Your task to perform on an android device: Empty the shopping cart on target. Search for dell xps on target, select the first entry, and add it to the cart. Image 0: 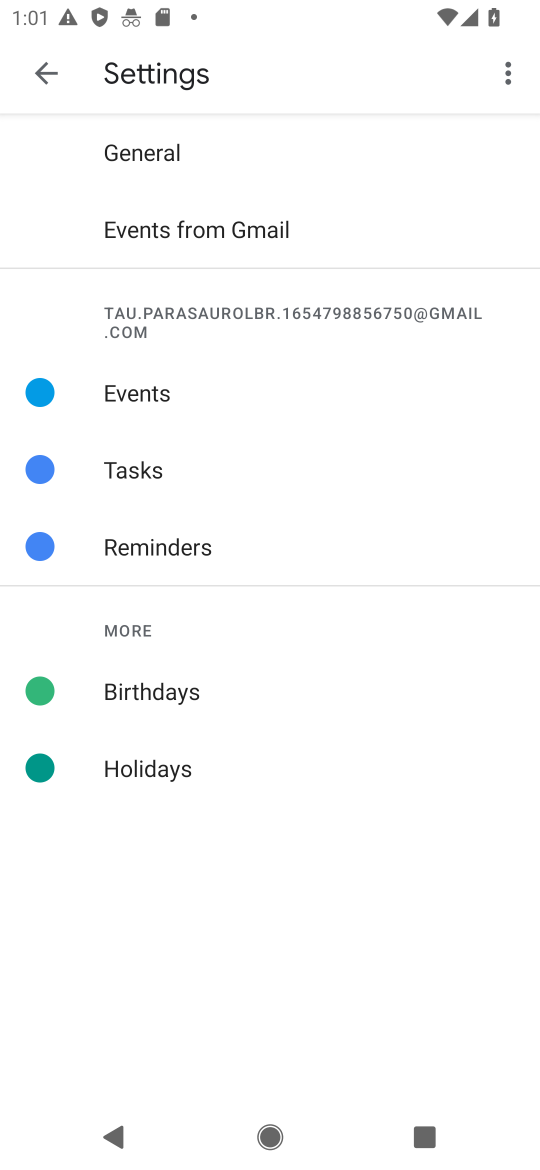
Step 0: task complete